Your task to perform on an android device: open app "YouTube Kids" Image 0: 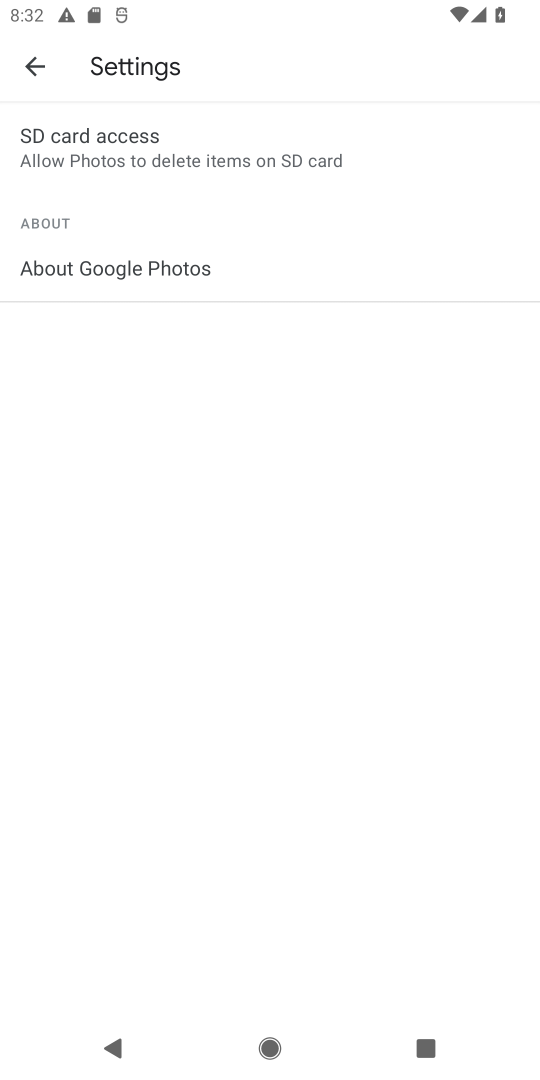
Step 0: press home button
Your task to perform on an android device: open app "YouTube Kids" Image 1: 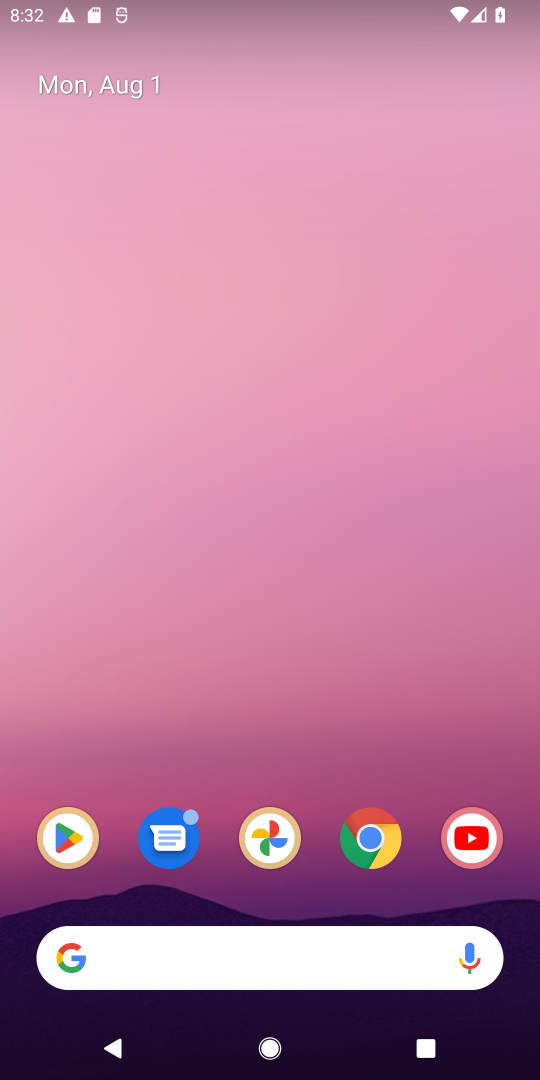
Step 1: drag from (375, 914) to (325, 120)
Your task to perform on an android device: open app "YouTube Kids" Image 2: 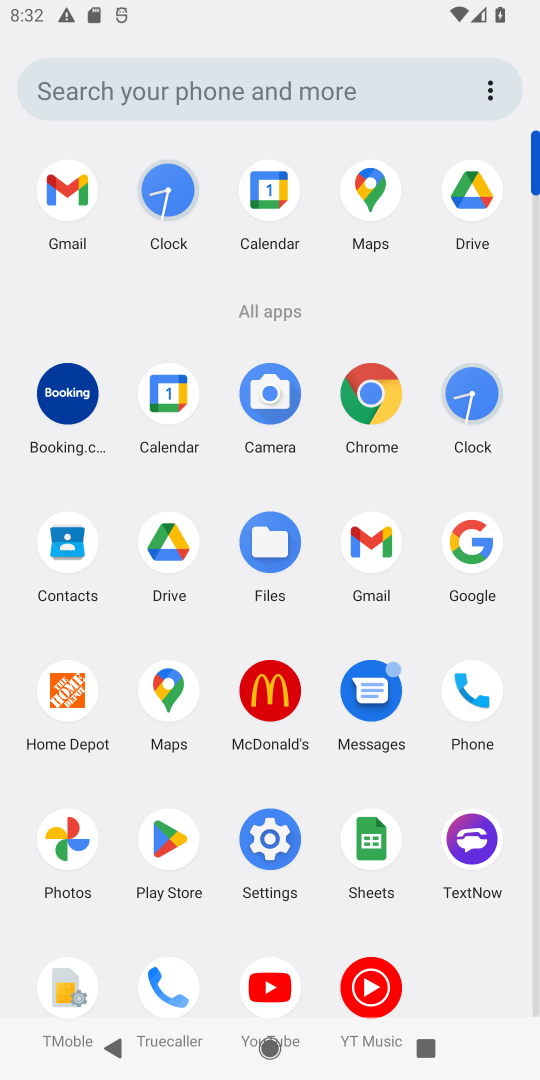
Step 2: click (172, 850)
Your task to perform on an android device: open app "YouTube Kids" Image 3: 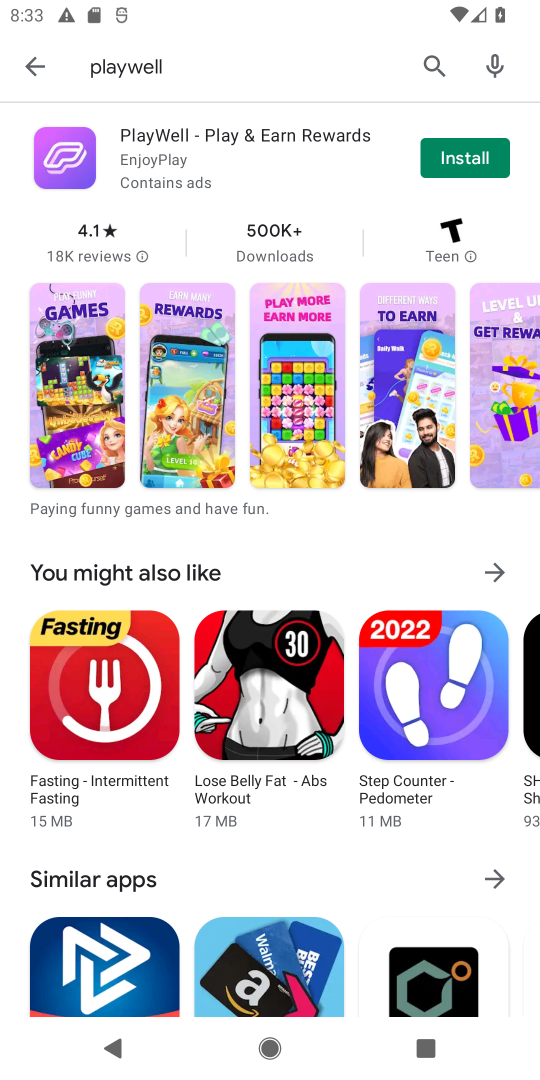
Step 3: task complete